Your task to perform on an android device: Open settings on Google Maps Image 0: 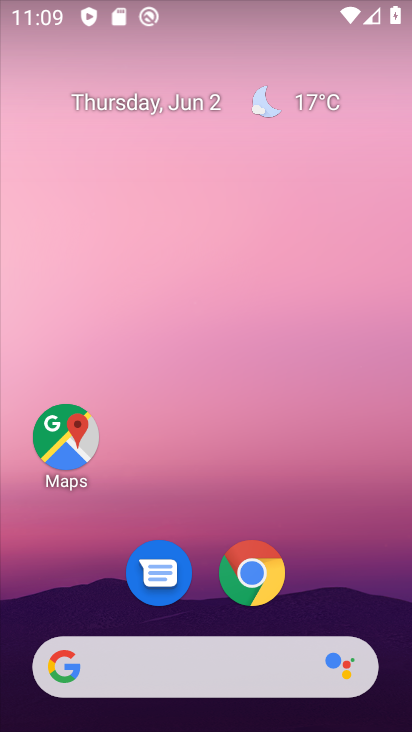
Step 0: task complete